Your task to perform on an android device: Open Android settings Image 0: 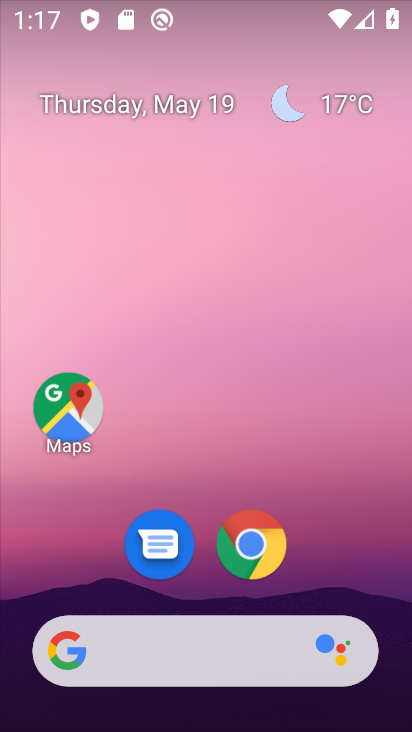
Step 0: drag from (196, 716) to (221, 327)
Your task to perform on an android device: Open Android settings Image 1: 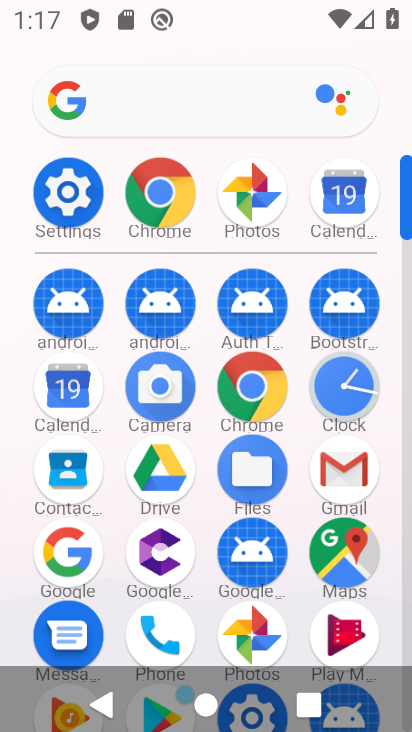
Step 1: click (69, 193)
Your task to perform on an android device: Open Android settings Image 2: 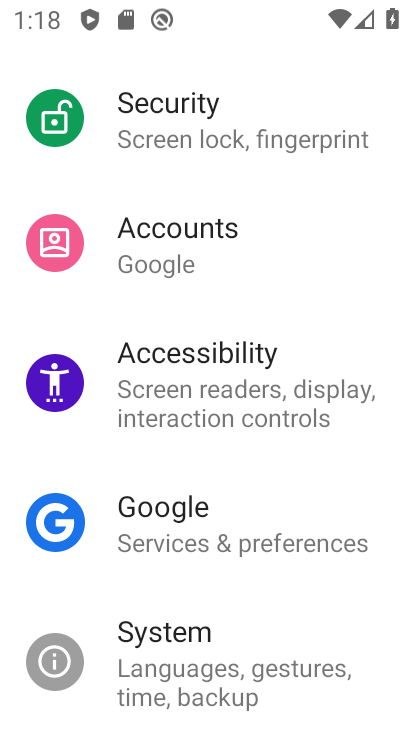
Step 2: task complete